Your task to perform on an android device: Go to Yahoo.com Image 0: 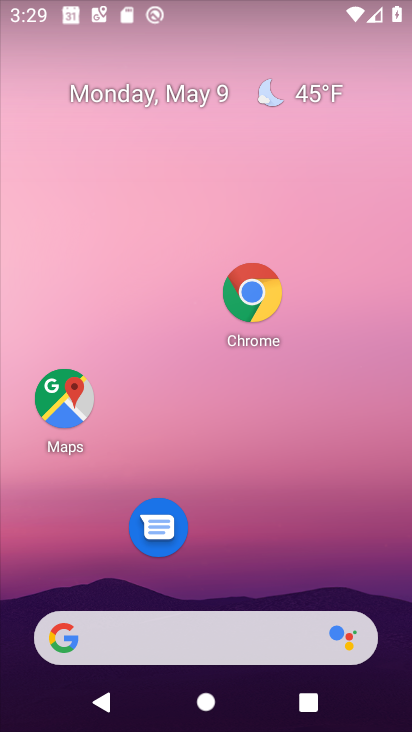
Step 0: click (265, 304)
Your task to perform on an android device: Go to Yahoo.com Image 1: 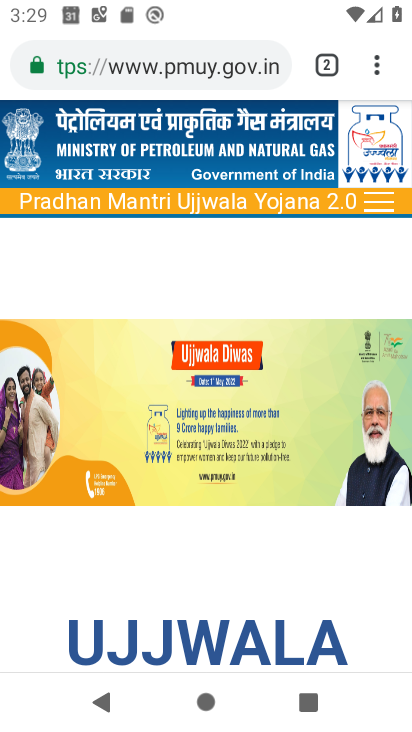
Step 1: click (269, 75)
Your task to perform on an android device: Go to Yahoo.com Image 2: 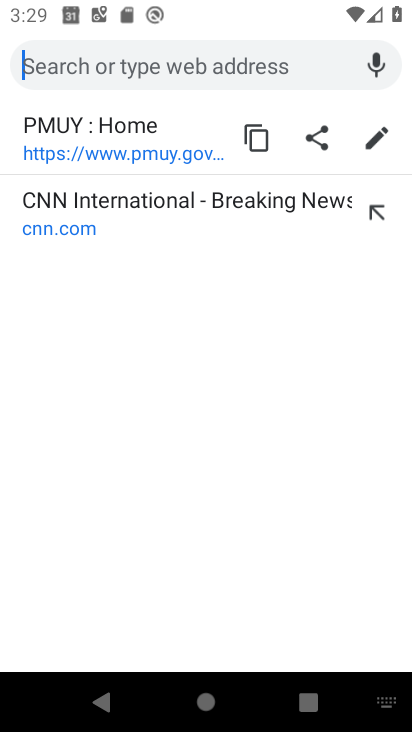
Step 2: type "yahoo"
Your task to perform on an android device: Go to Yahoo.com Image 3: 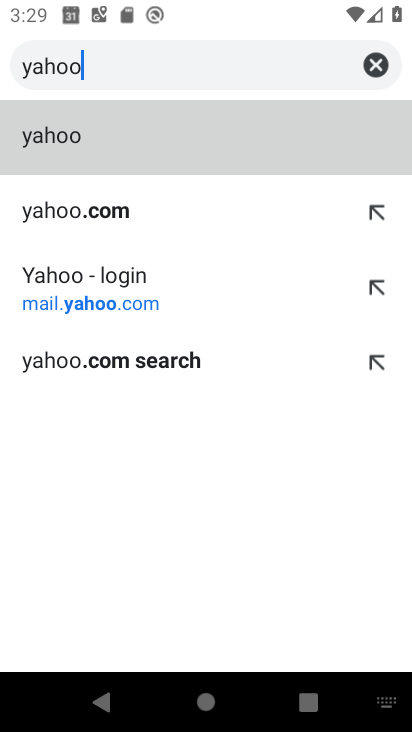
Step 3: click (174, 196)
Your task to perform on an android device: Go to Yahoo.com Image 4: 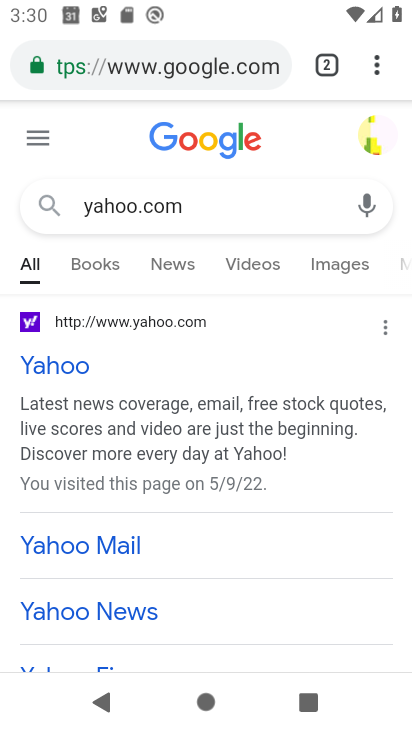
Step 4: click (56, 372)
Your task to perform on an android device: Go to Yahoo.com Image 5: 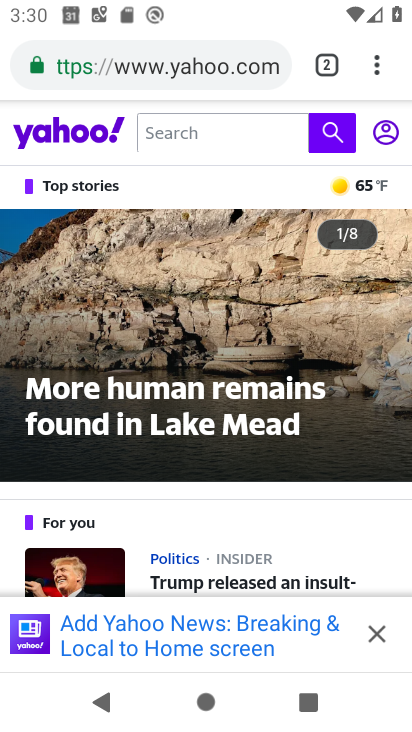
Step 5: task complete